Your task to perform on an android device: Open eBay Image 0: 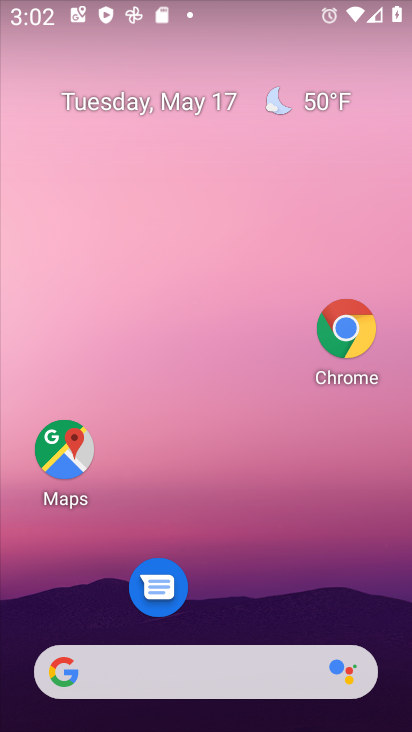
Step 0: drag from (283, 610) to (330, 203)
Your task to perform on an android device: Open eBay Image 1: 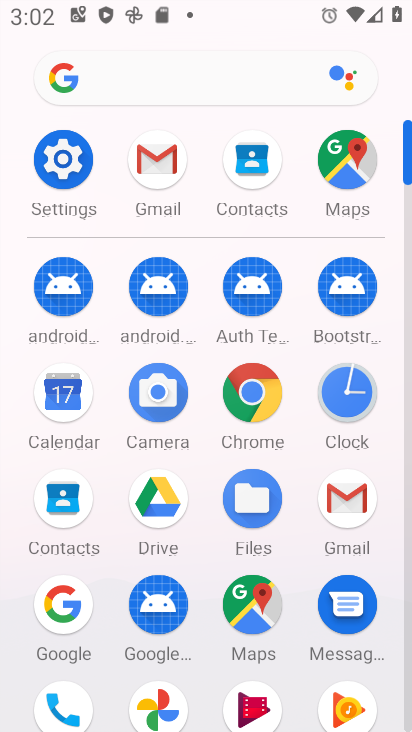
Step 1: click (253, 421)
Your task to perform on an android device: Open eBay Image 2: 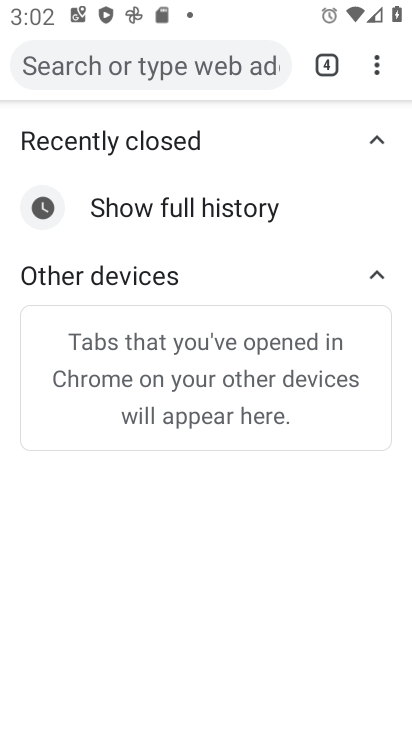
Step 2: click (183, 58)
Your task to perform on an android device: Open eBay Image 3: 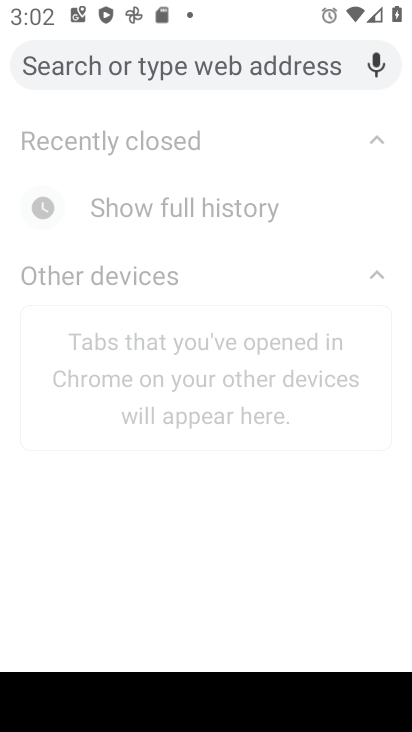
Step 3: type "ebay.com"
Your task to perform on an android device: Open eBay Image 4: 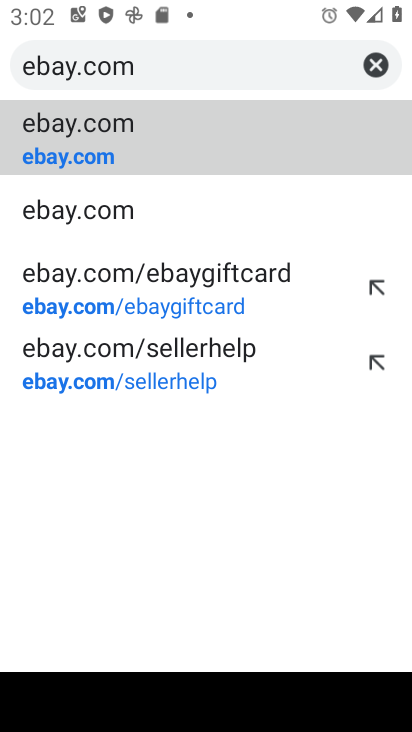
Step 4: click (134, 162)
Your task to perform on an android device: Open eBay Image 5: 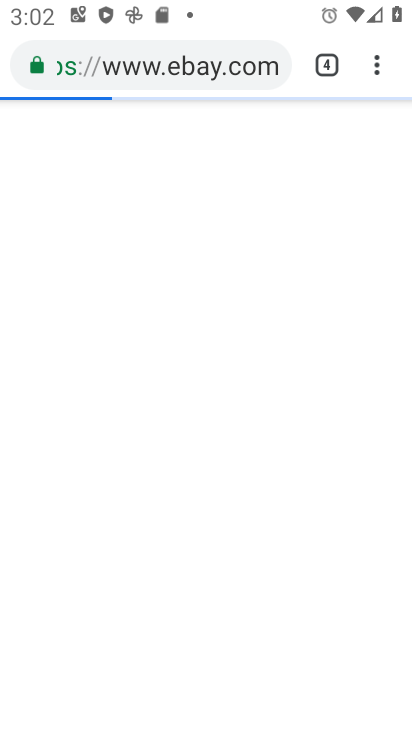
Step 5: task complete